Your task to perform on an android device: Open Android settings Image 0: 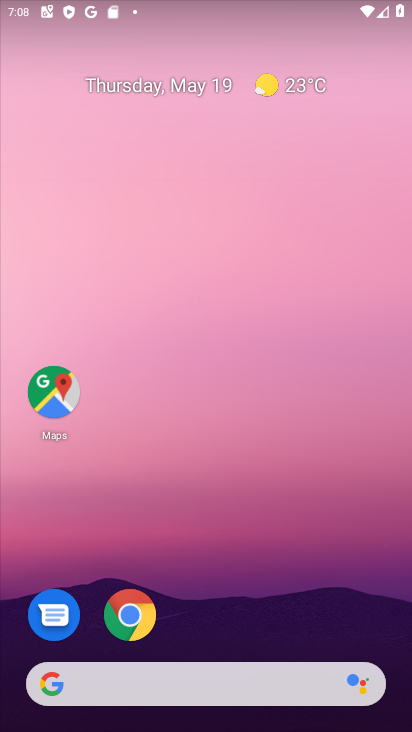
Step 0: drag from (333, 626) to (290, 10)
Your task to perform on an android device: Open Android settings Image 1: 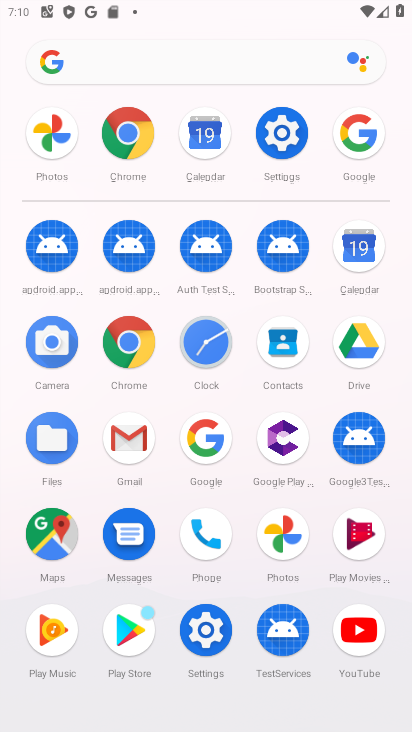
Step 1: click (203, 634)
Your task to perform on an android device: Open Android settings Image 2: 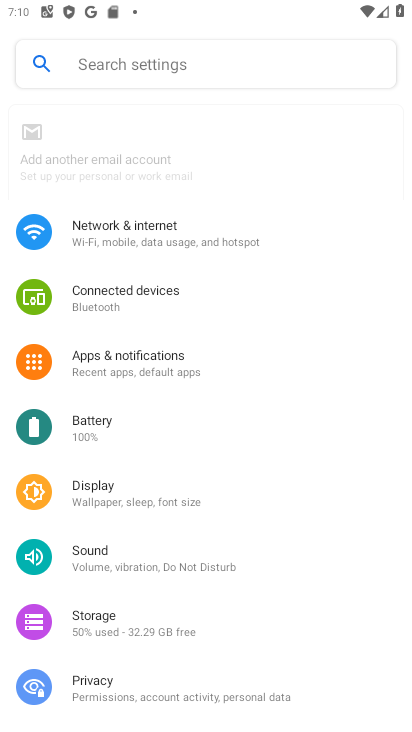
Step 2: drag from (203, 634) to (209, 74)
Your task to perform on an android device: Open Android settings Image 3: 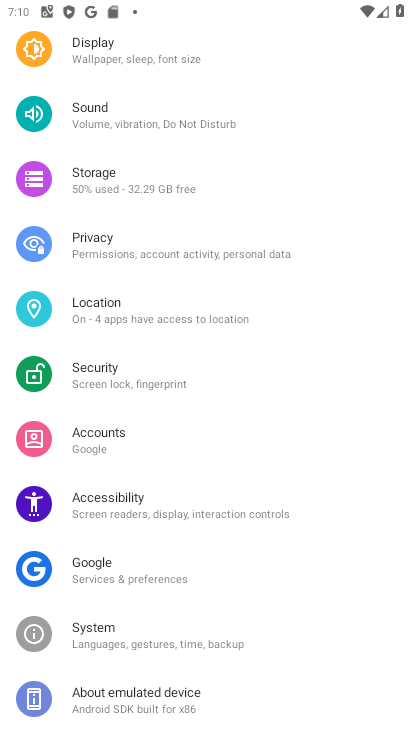
Step 3: click (155, 692)
Your task to perform on an android device: Open Android settings Image 4: 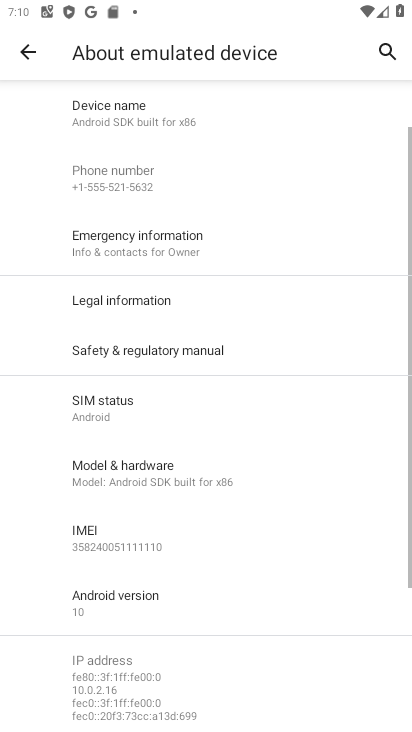
Step 4: click (164, 615)
Your task to perform on an android device: Open Android settings Image 5: 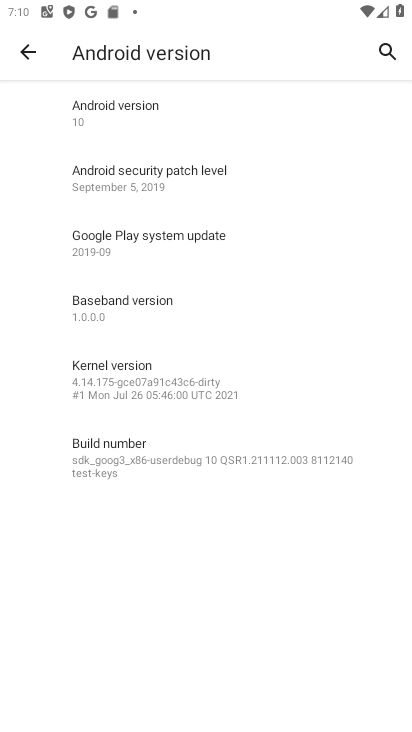
Step 5: task complete